Your task to perform on an android device: Search for Italian restaurants on Maps Image 0: 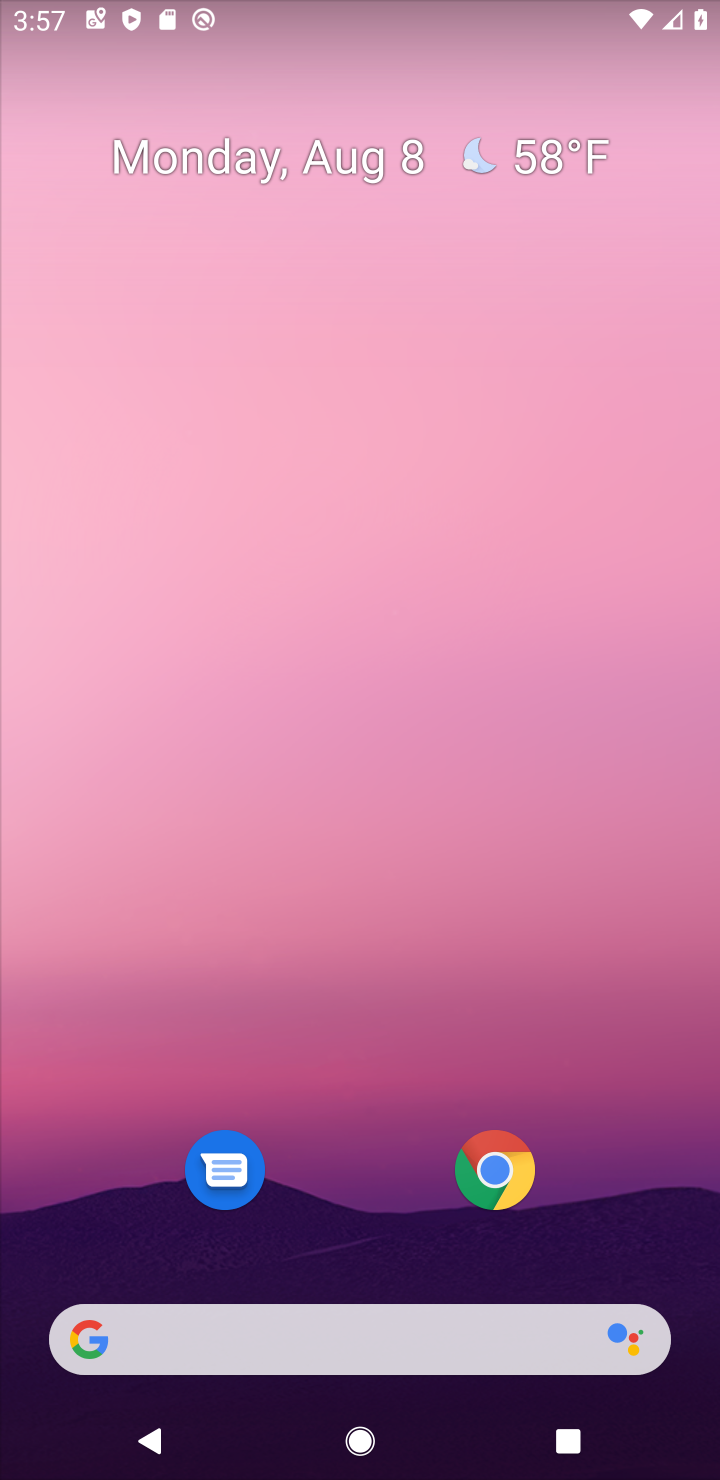
Step 0: drag from (371, 1190) to (392, 239)
Your task to perform on an android device: Search for Italian restaurants on Maps Image 1: 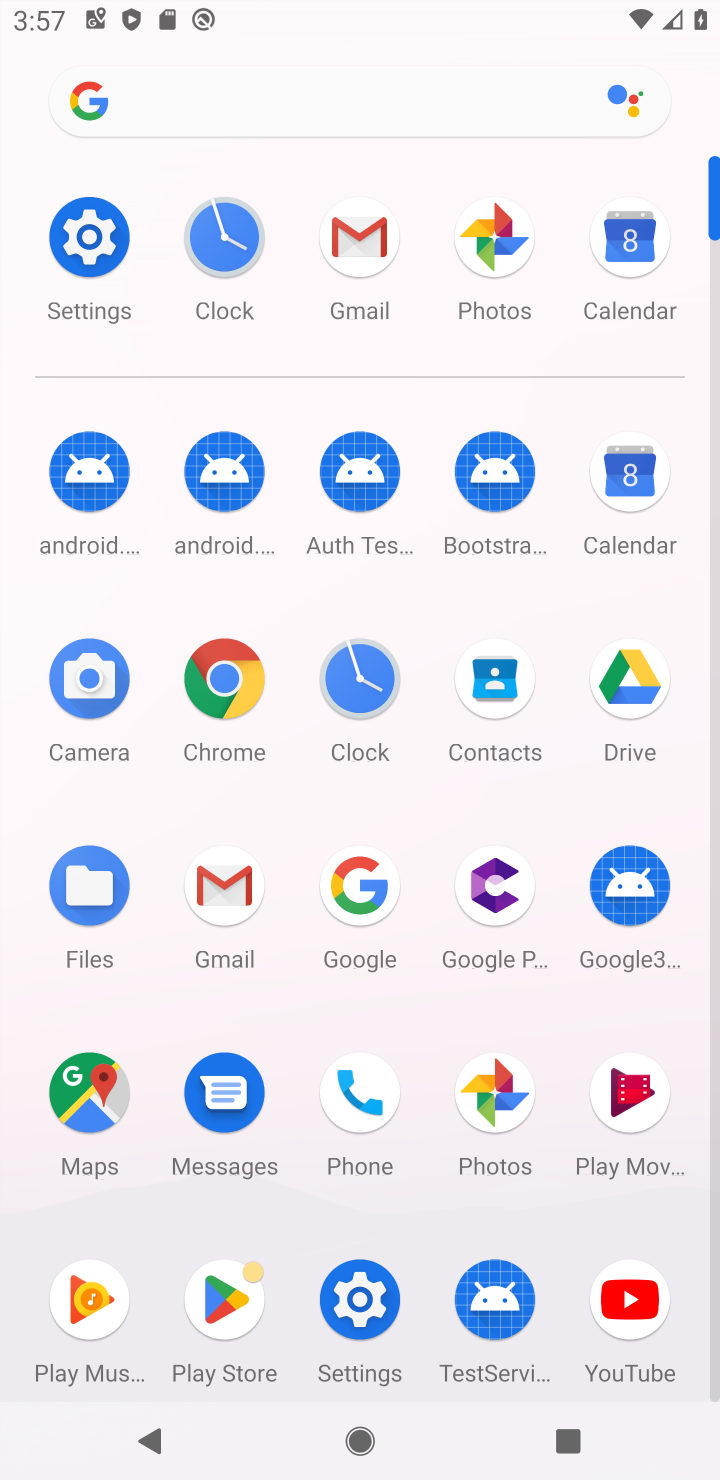
Step 1: click (91, 1125)
Your task to perform on an android device: Search for Italian restaurants on Maps Image 2: 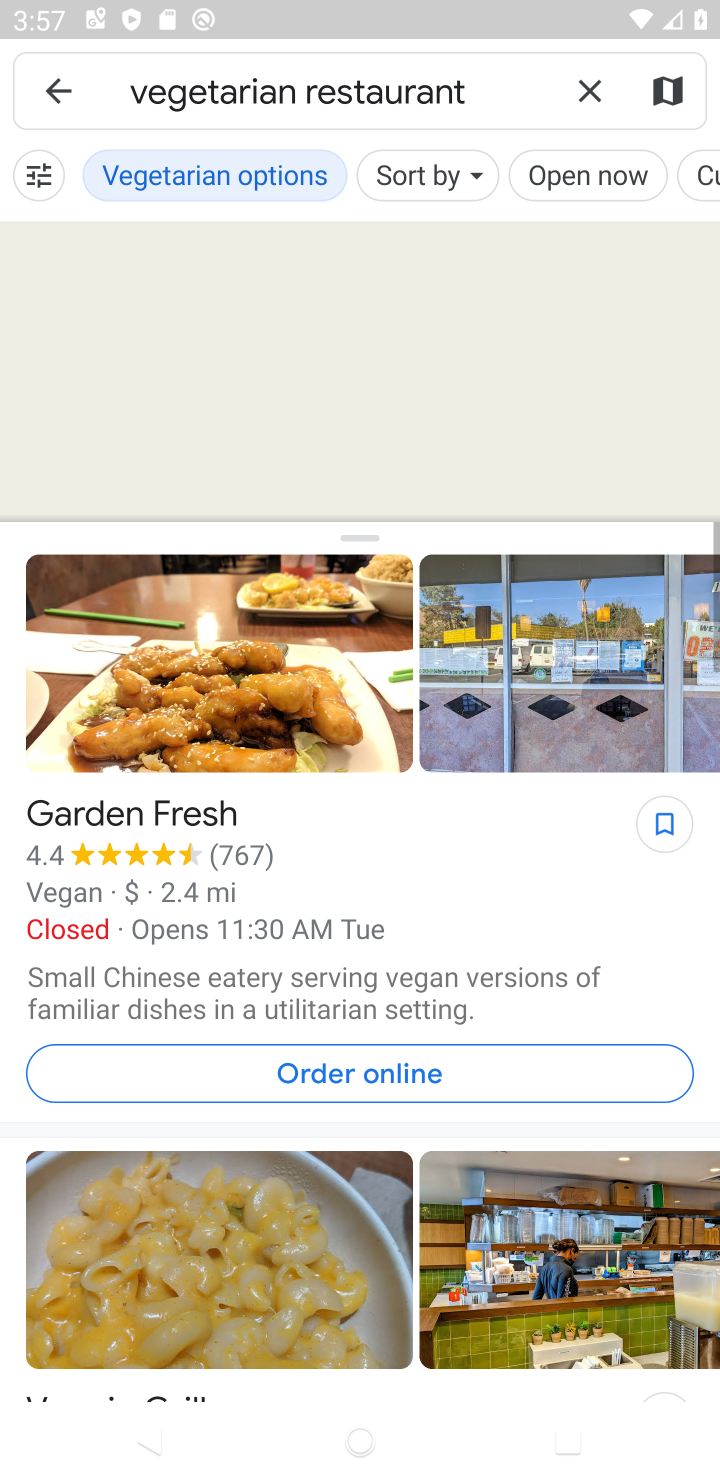
Step 2: click (579, 93)
Your task to perform on an android device: Search for Italian restaurants on Maps Image 3: 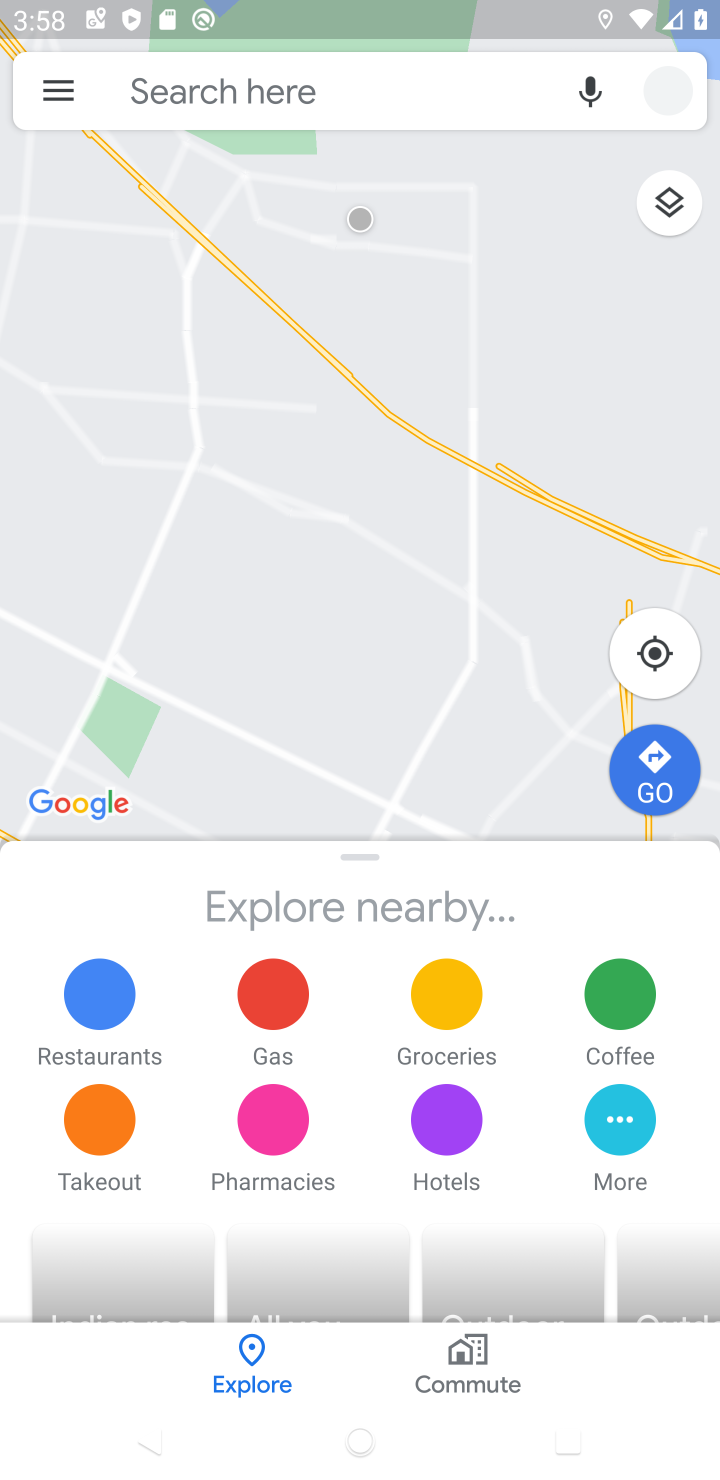
Step 3: click (390, 103)
Your task to perform on an android device: Search for Italian restaurants on Maps Image 4: 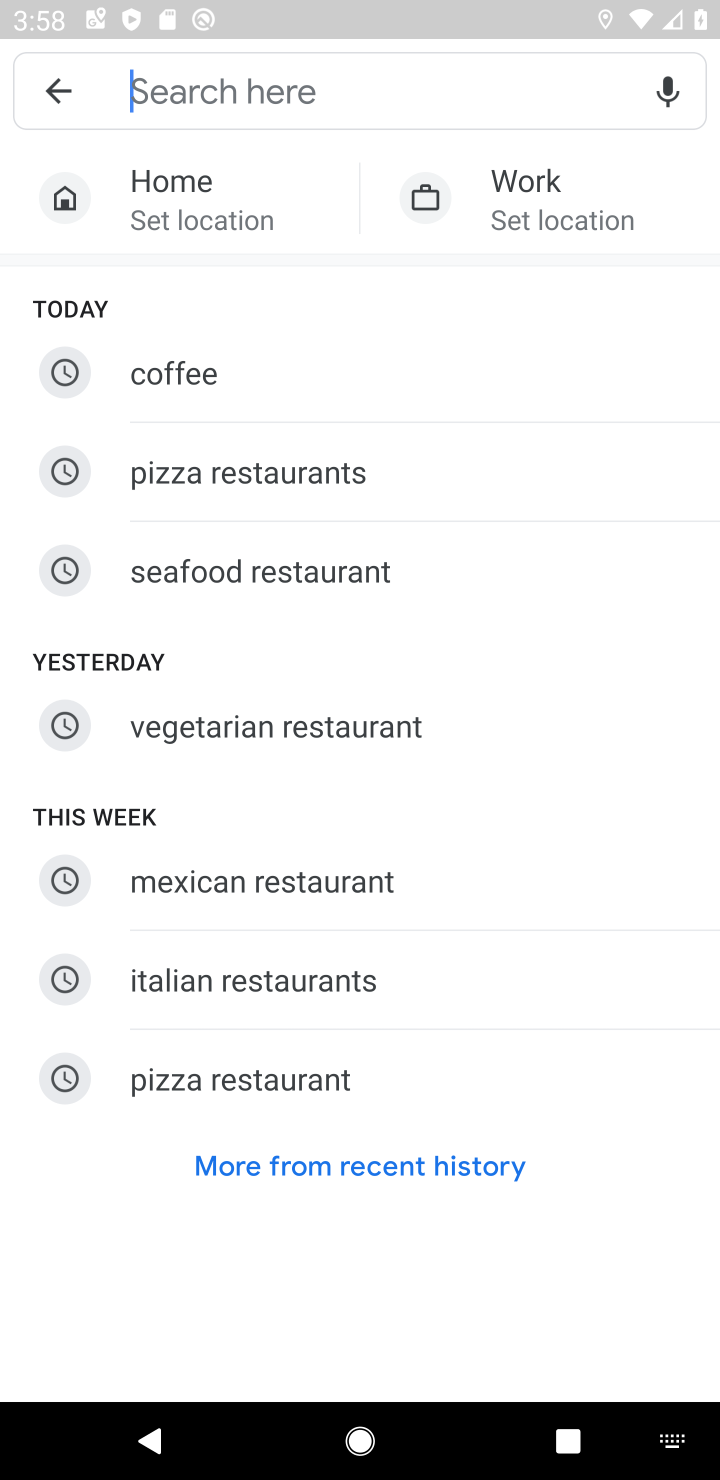
Step 4: type "Italian restaurants"
Your task to perform on an android device: Search for Italian restaurants on Maps Image 5: 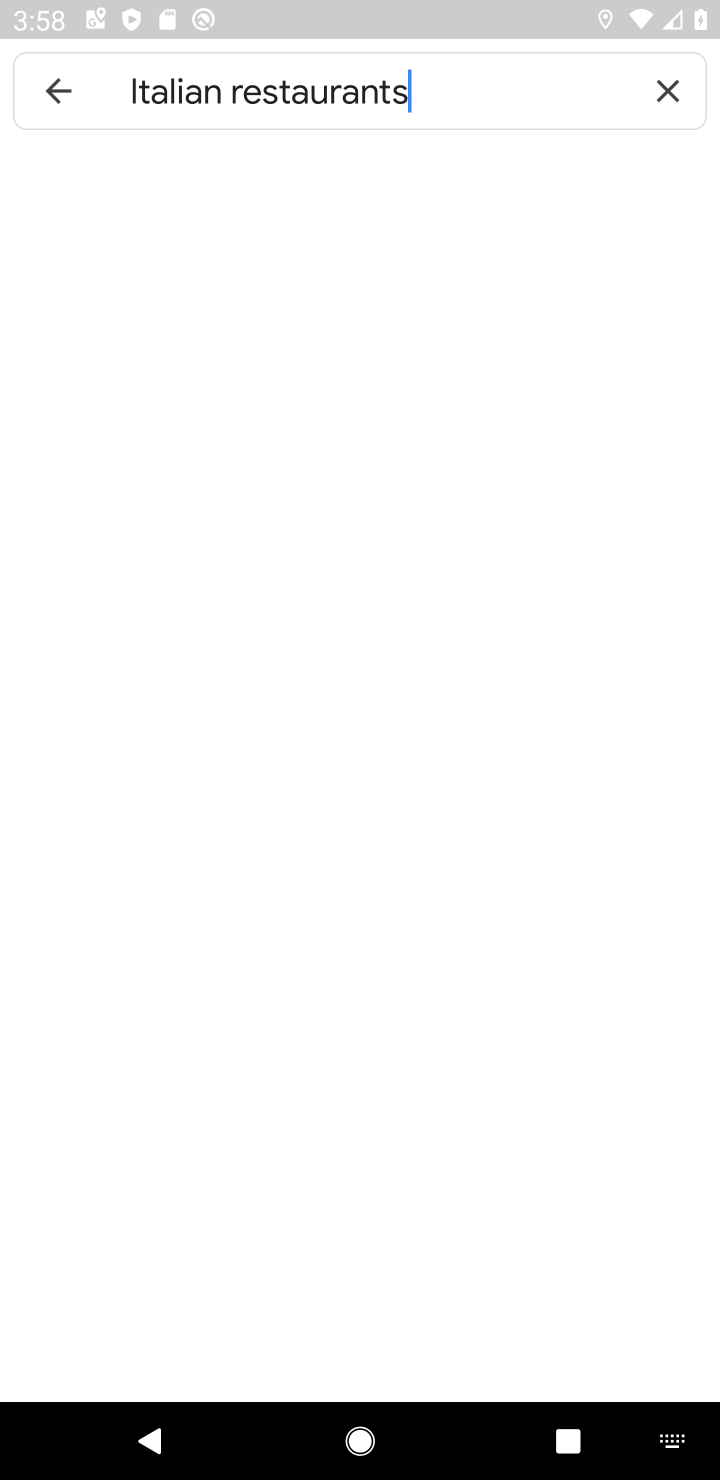
Step 5: type ""
Your task to perform on an android device: Search for Italian restaurants on Maps Image 6: 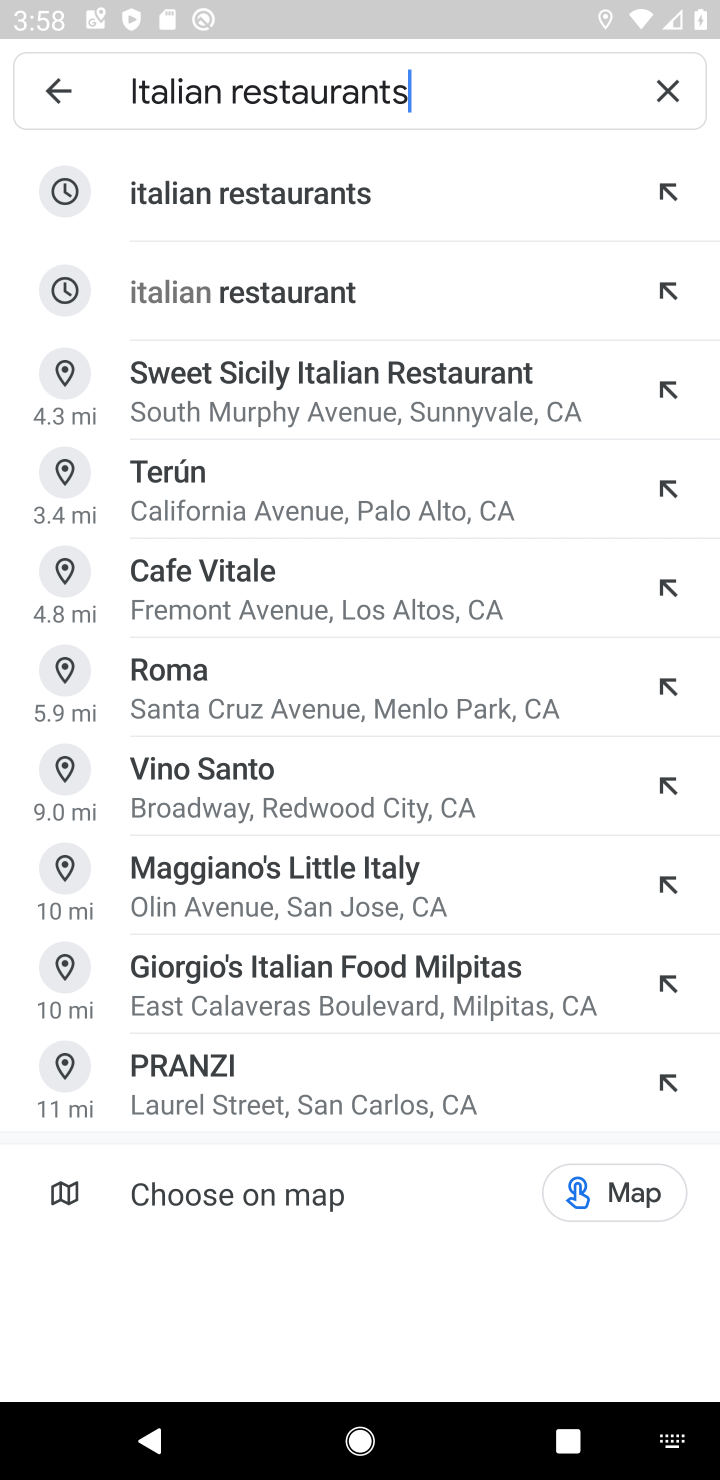
Step 6: click (259, 207)
Your task to perform on an android device: Search for Italian restaurants on Maps Image 7: 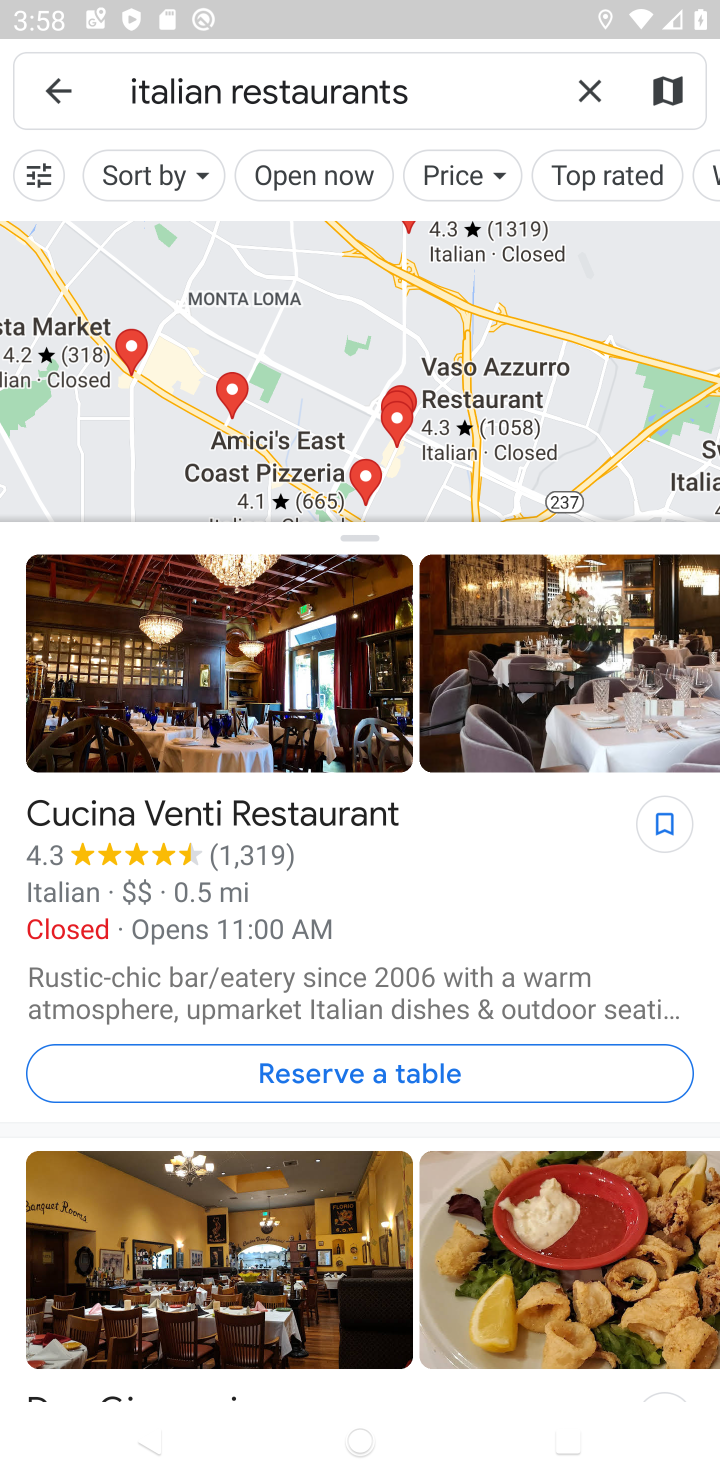
Step 7: task complete